Your task to perform on an android device: Open the calendar and show me this week's events? Image 0: 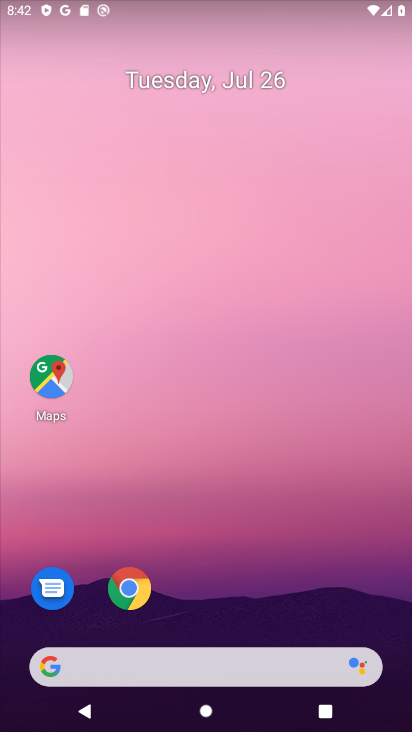
Step 0: press home button
Your task to perform on an android device: Open the calendar and show me this week's events? Image 1: 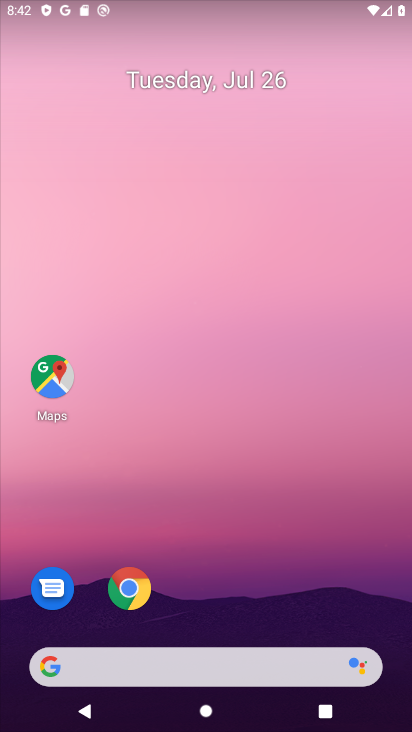
Step 1: drag from (214, 621) to (247, 28)
Your task to perform on an android device: Open the calendar and show me this week's events? Image 2: 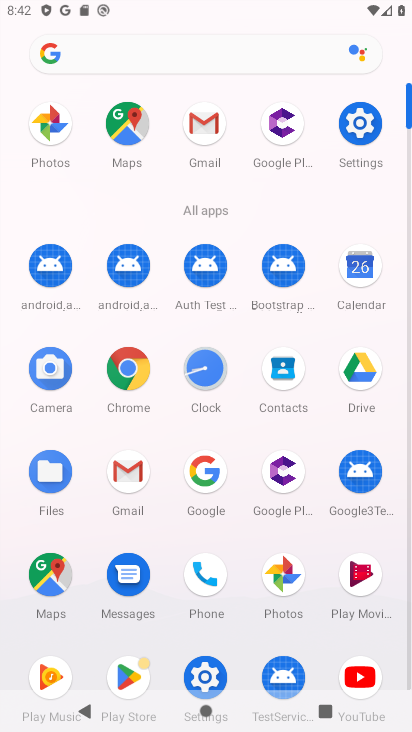
Step 2: click (357, 263)
Your task to perform on an android device: Open the calendar and show me this week's events? Image 3: 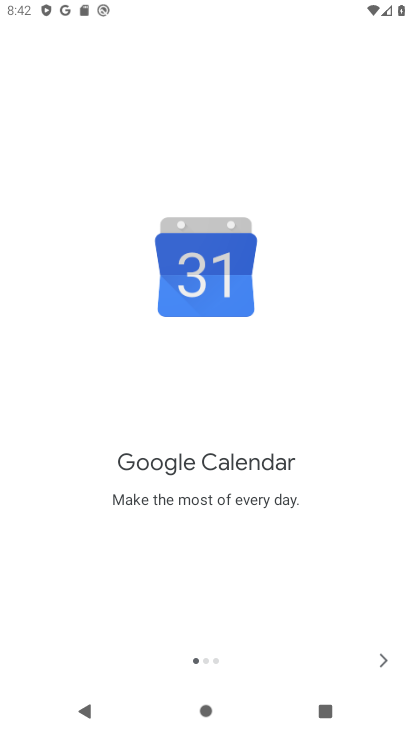
Step 3: click (377, 654)
Your task to perform on an android device: Open the calendar and show me this week's events? Image 4: 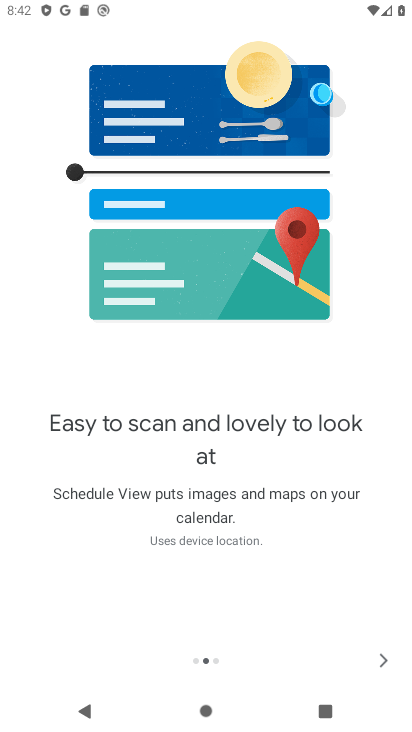
Step 4: click (382, 656)
Your task to perform on an android device: Open the calendar and show me this week's events? Image 5: 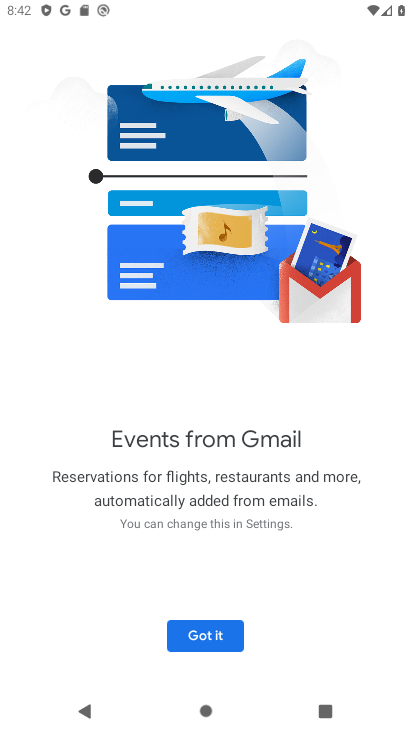
Step 5: click (211, 631)
Your task to perform on an android device: Open the calendar and show me this week's events? Image 6: 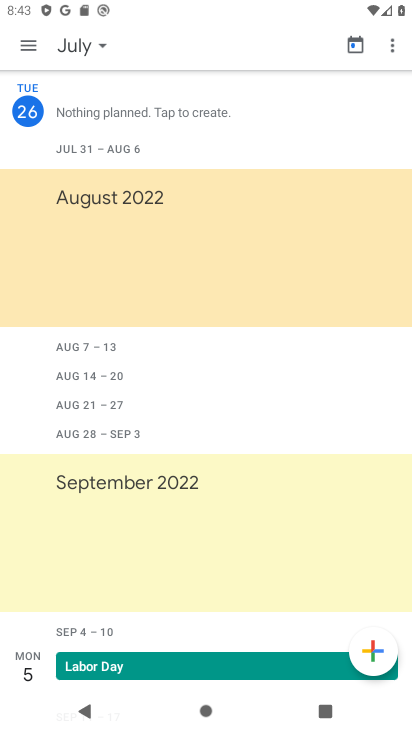
Step 6: click (34, 40)
Your task to perform on an android device: Open the calendar and show me this week's events? Image 7: 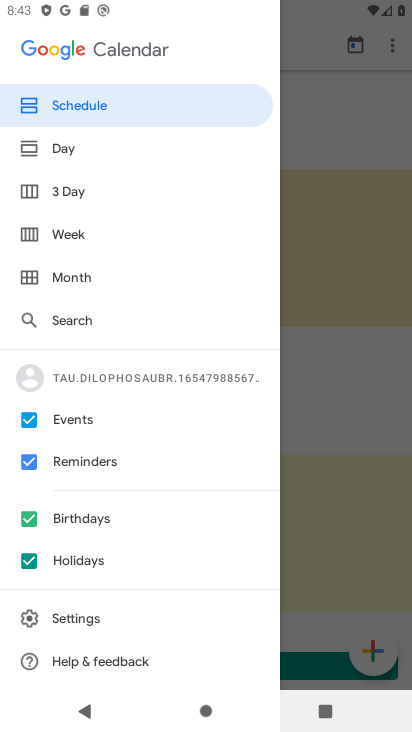
Step 7: click (31, 517)
Your task to perform on an android device: Open the calendar and show me this week's events? Image 8: 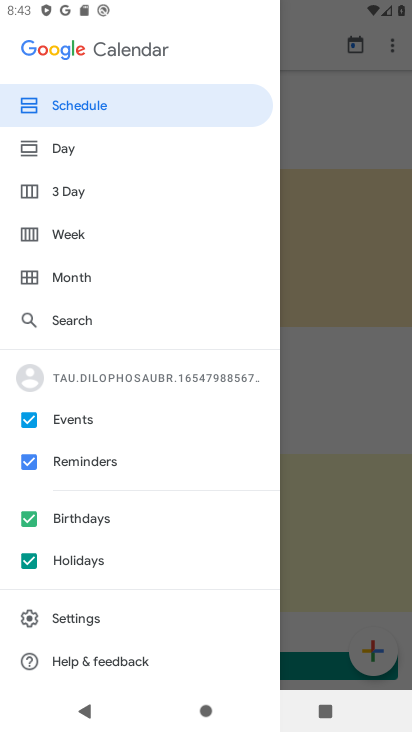
Step 8: click (27, 463)
Your task to perform on an android device: Open the calendar and show me this week's events? Image 9: 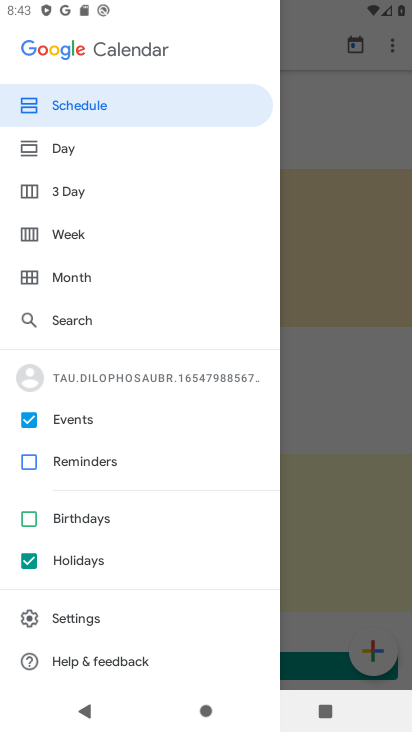
Step 9: click (33, 561)
Your task to perform on an android device: Open the calendar and show me this week's events? Image 10: 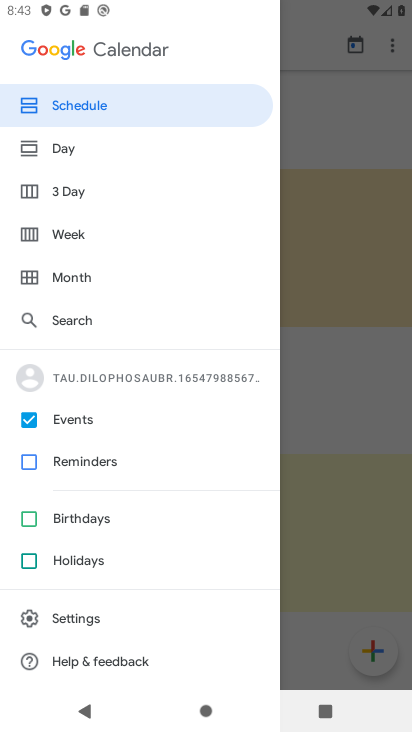
Step 10: click (42, 230)
Your task to perform on an android device: Open the calendar and show me this week's events? Image 11: 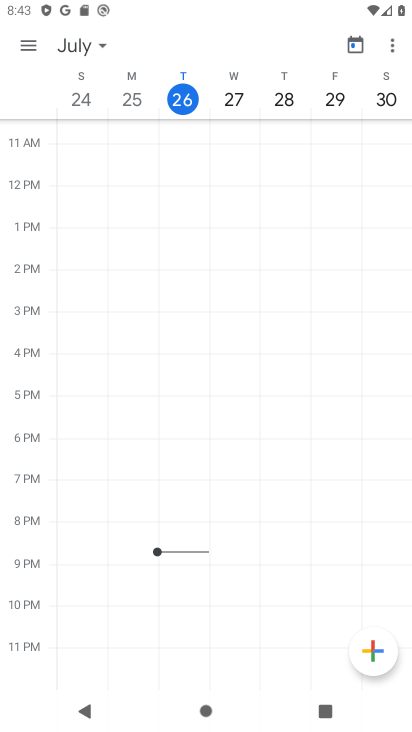
Step 11: task complete